Your task to perform on an android device: Open Google Image 0: 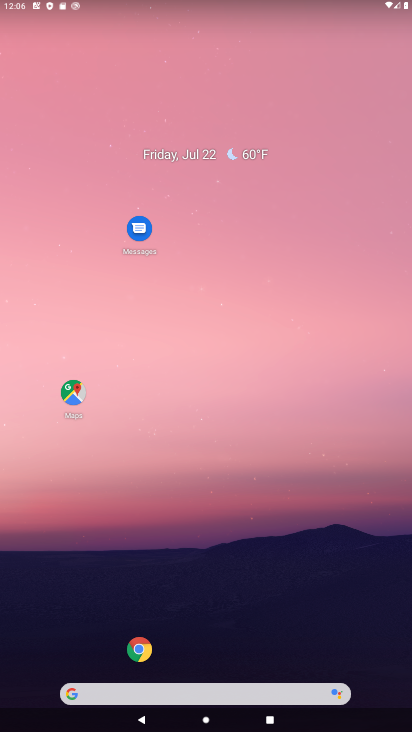
Step 0: click (74, 691)
Your task to perform on an android device: Open Google Image 1: 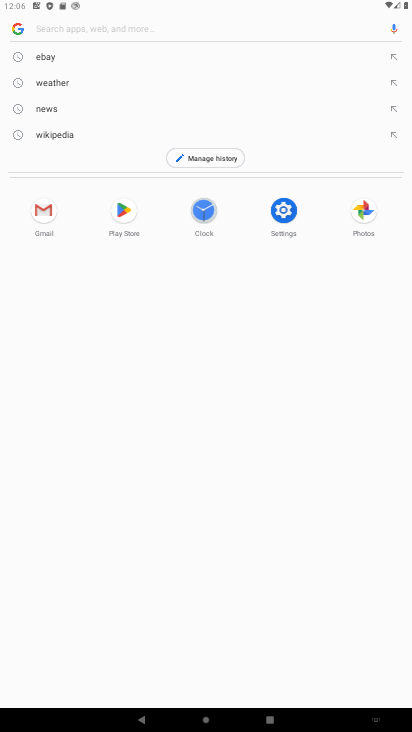
Step 1: task complete